Your task to perform on an android device: toggle notification dots Image 0: 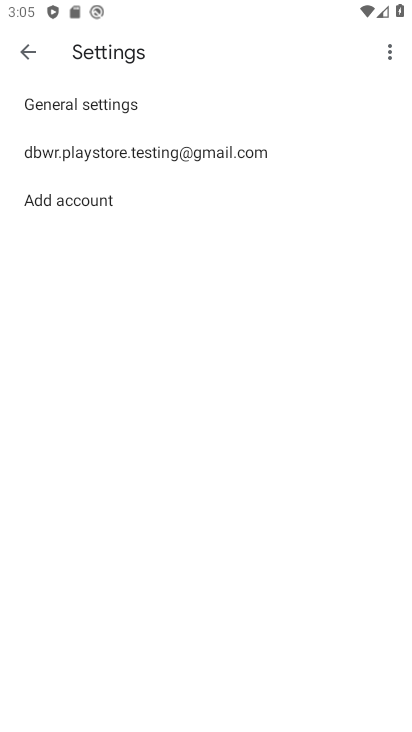
Step 0: press home button
Your task to perform on an android device: toggle notification dots Image 1: 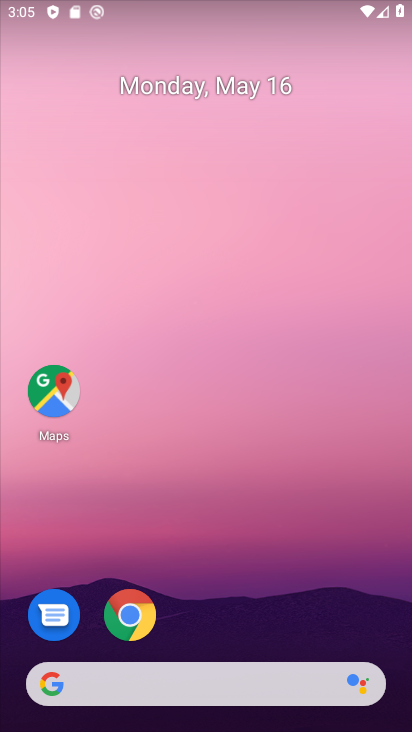
Step 1: drag from (231, 573) to (278, 60)
Your task to perform on an android device: toggle notification dots Image 2: 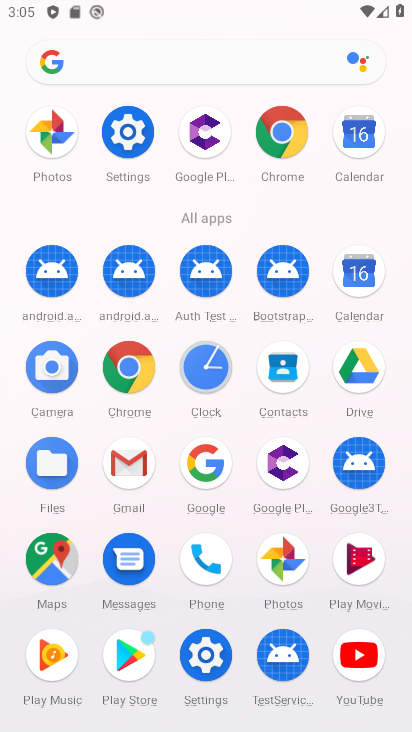
Step 2: click (124, 131)
Your task to perform on an android device: toggle notification dots Image 3: 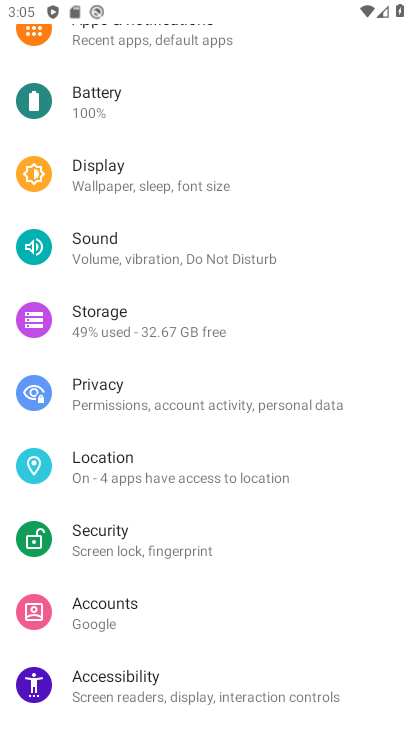
Step 3: drag from (244, 132) to (205, 564)
Your task to perform on an android device: toggle notification dots Image 4: 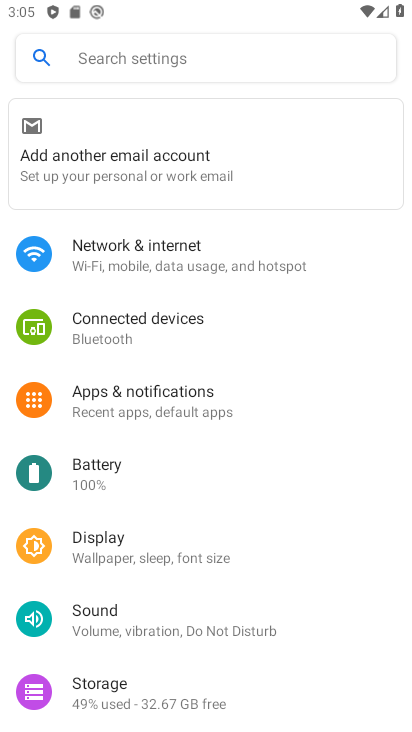
Step 4: click (182, 402)
Your task to perform on an android device: toggle notification dots Image 5: 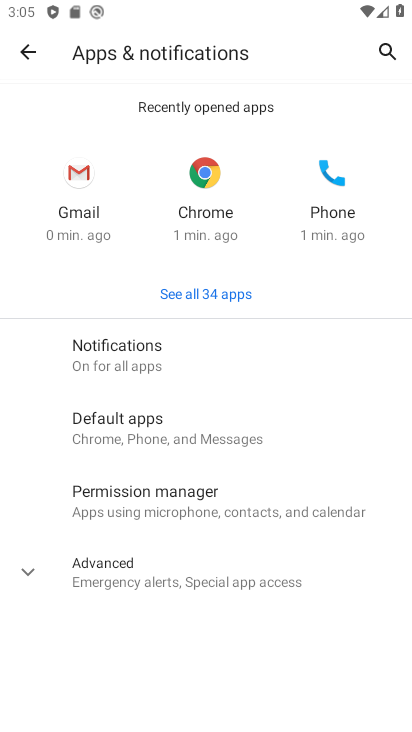
Step 5: click (162, 353)
Your task to perform on an android device: toggle notification dots Image 6: 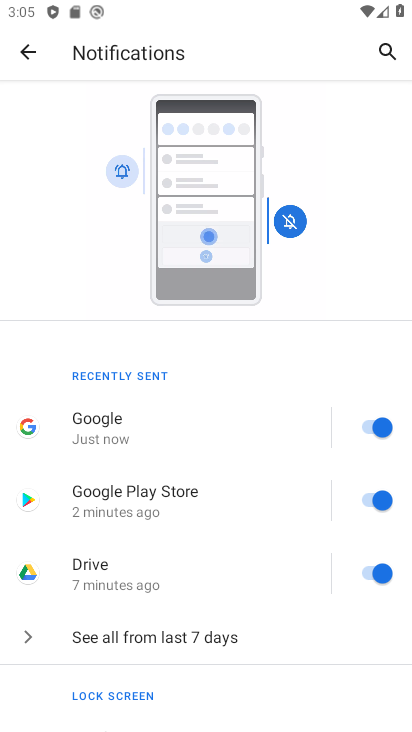
Step 6: drag from (215, 546) to (252, 204)
Your task to perform on an android device: toggle notification dots Image 7: 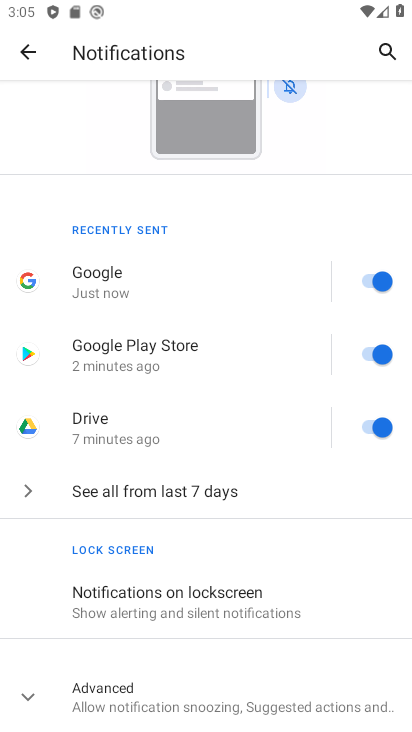
Step 7: click (27, 690)
Your task to perform on an android device: toggle notification dots Image 8: 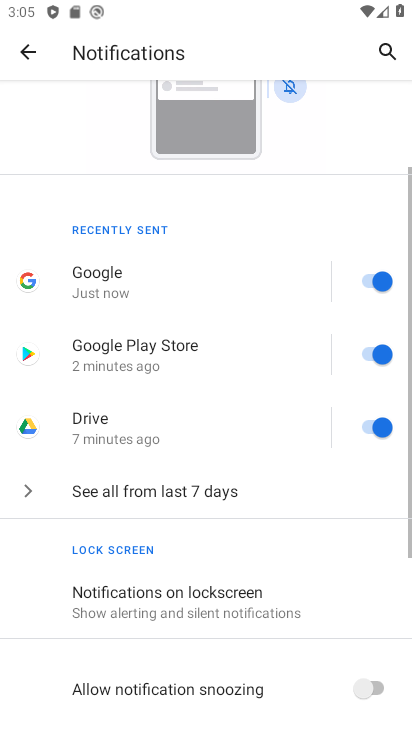
Step 8: drag from (215, 552) to (235, 201)
Your task to perform on an android device: toggle notification dots Image 9: 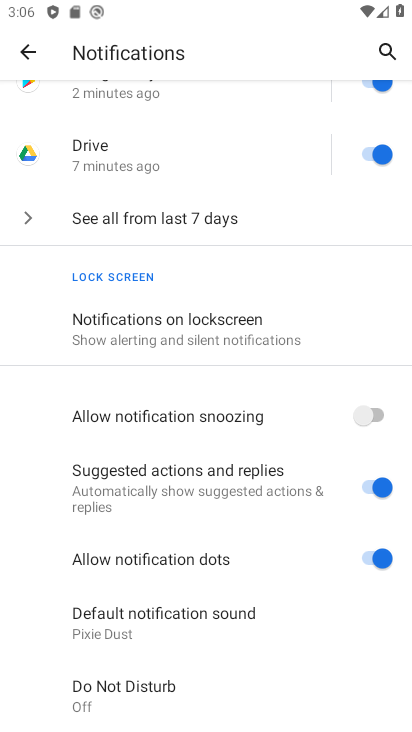
Step 9: click (376, 556)
Your task to perform on an android device: toggle notification dots Image 10: 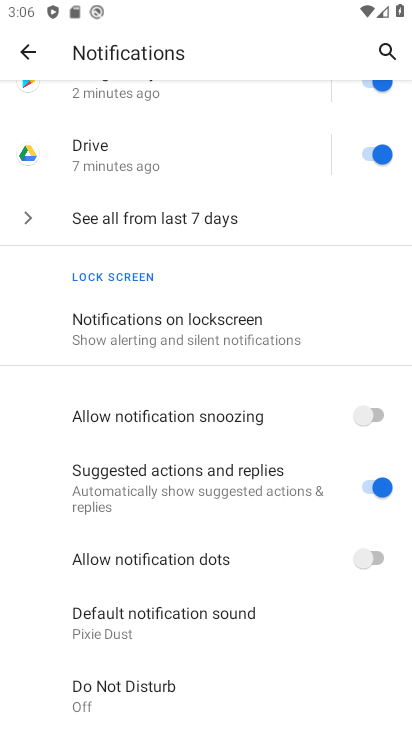
Step 10: task complete